Your task to perform on an android device: Open Chrome and go to the settings page Image 0: 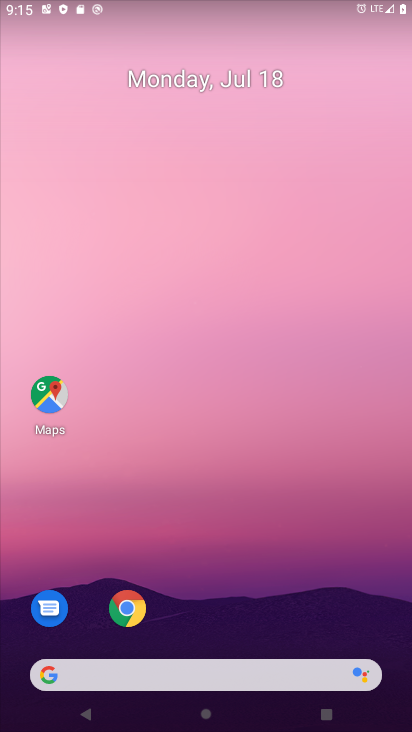
Step 0: drag from (239, 721) to (232, 178)
Your task to perform on an android device: Open Chrome and go to the settings page Image 1: 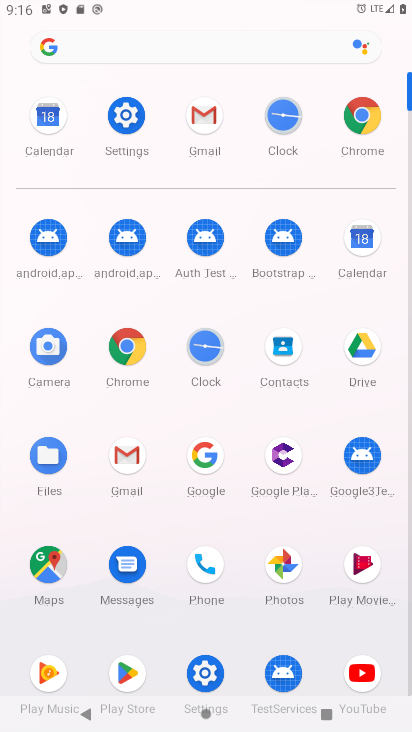
Step 1: click (362, 115)
Your task to perform on an android device: Open Chrome and go to the settings page Image 2: 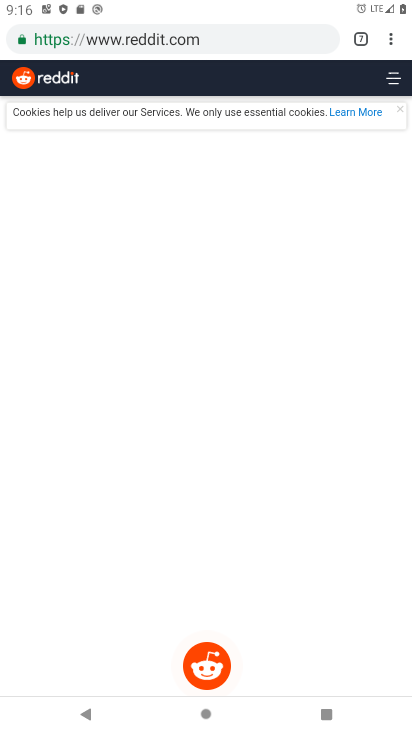
Step 2: click (390, 41)
Your task to perform on an android device: Open Chrome and go to the settings page Image 3: 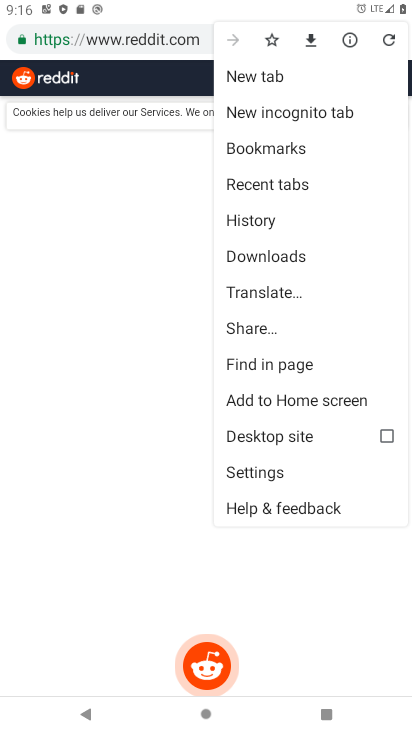
Step 3: click (254, 469)
Your task to perform on an android device: Open Chrome and go to the settings page Image 4: 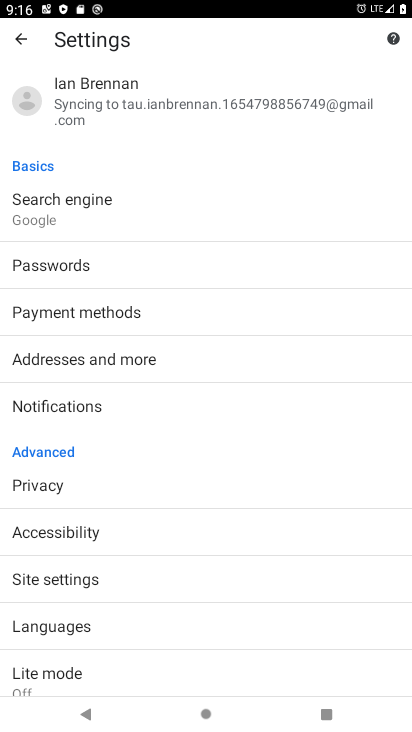
Step 4: task complete